Your task to perform on an android device: find snoozed emails in the gmail app Image 0: 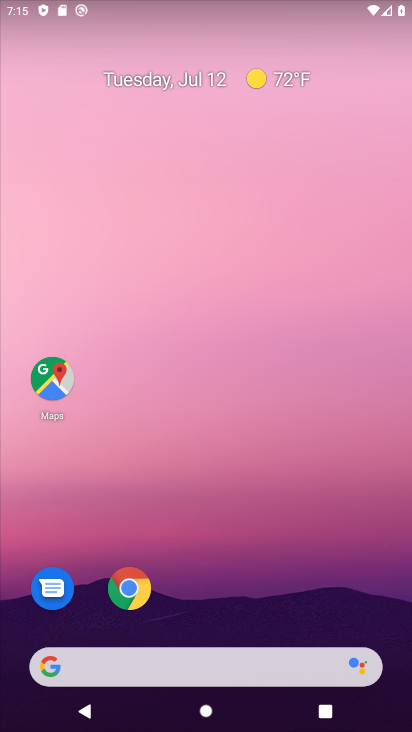
Step 0: drag from (263, 540) to (213, 4)
Your task to perform on an android device: find snoozed emails in the gmail app Image 1: 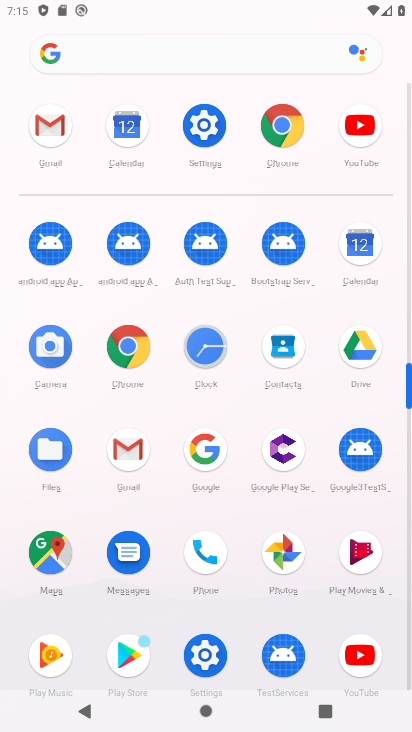
Step 1: click (41, 128)
Your task to perform on an android device: find snoozed emails in the gmail app Image 2: 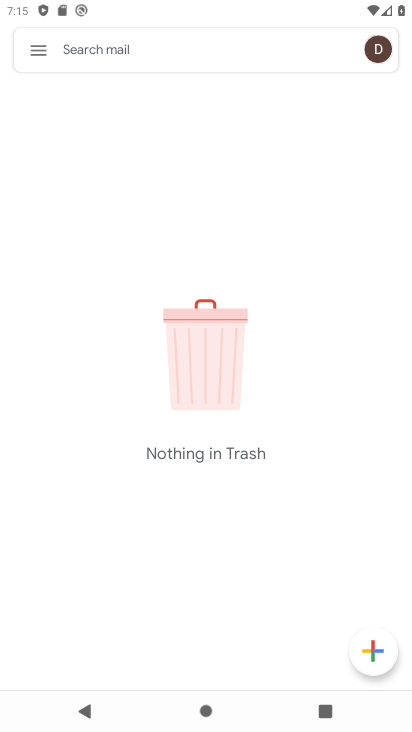
Step 2: click (38, 60)
Your task to perform on an android device: find snoozed emails in the gmail app Image 3: 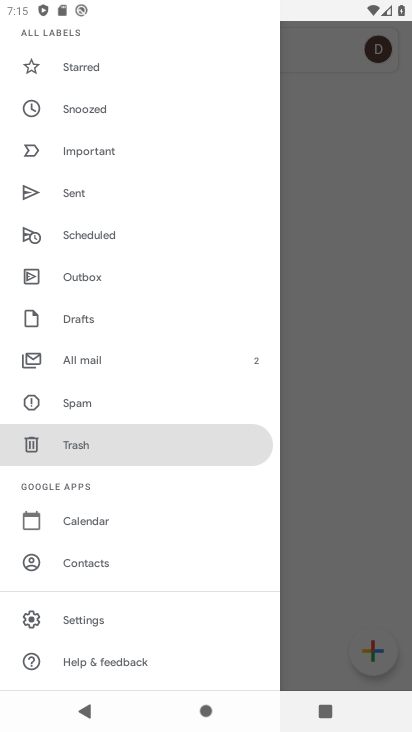
Step 3: click (65, 105)
Your task to perform on an android device: find snoozed emails in the gmail app Image 4: 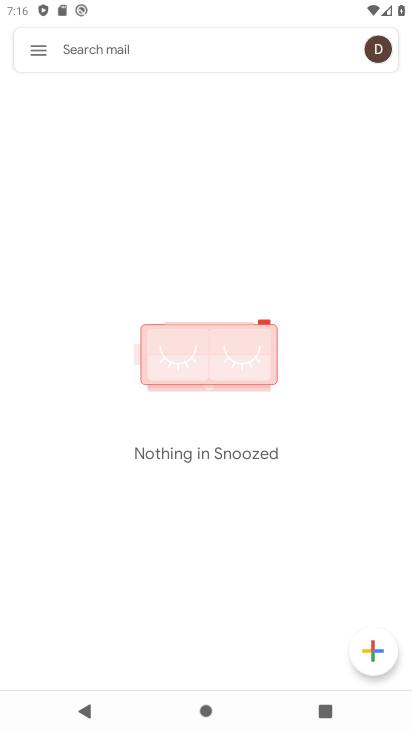
Step 4: task complete